Your task to perform on an android device: Open the calendar app, open the side menu, and click the "Day" option Image 0: 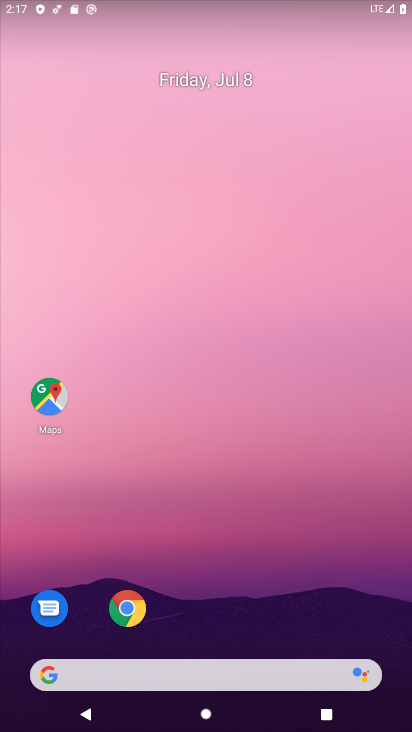
Step 0: drag from (234, 623) to (295, 60)
Your task to perform on an android device: Open the calendar app, open the side menu, and click the "Day" option Image 1: 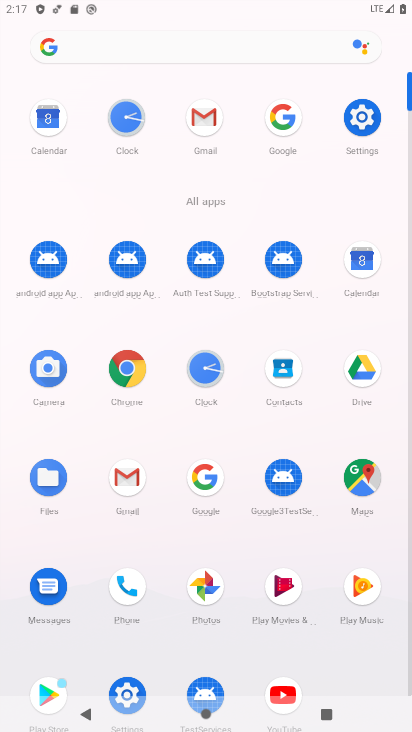
Step 1: click (365, 256)
Your task to perform on an android device: Open the calendar app, open the side menu, and click the "Day" option Image 2: 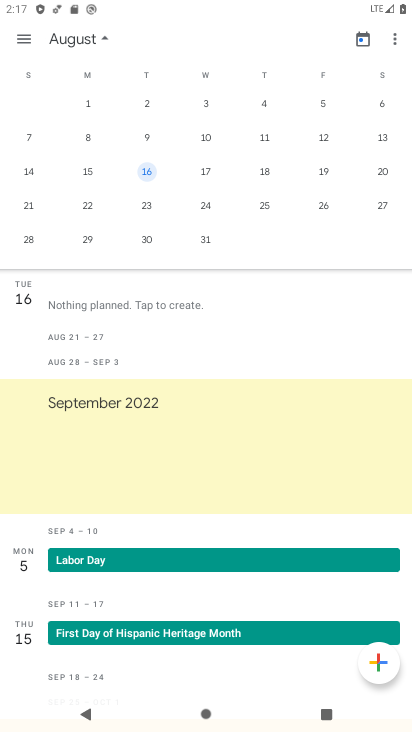
Step 2: click (22, 33)
Your task to perform on an android device: Open the calendar app, open the side menu, and click the "Day" option Image 3: 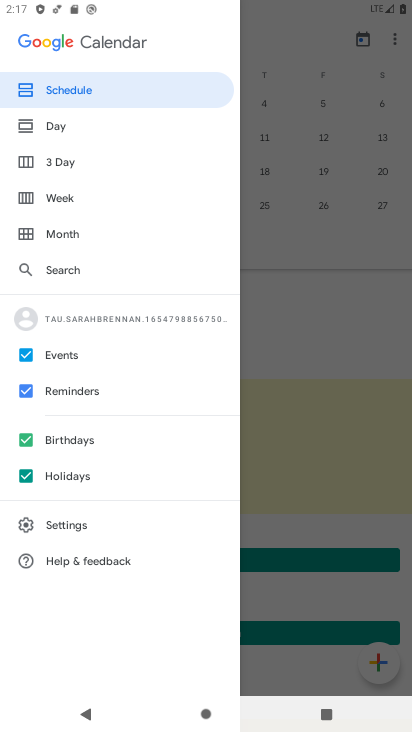
Step 3: click (303, 188)
Your task to perform on an android device: Open the calendar app, open the side menu, and click the "Day" option Image 4: 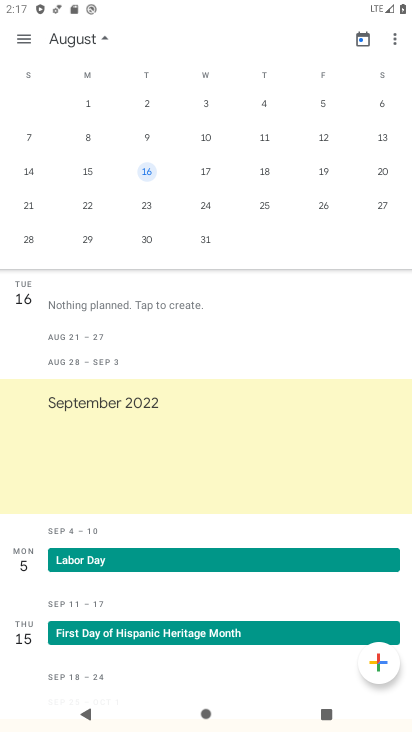
Step 4: drag from (60, 198) to (383, 197)
Your task to perform on an android device: Open the calendar app, open the side menu, and click the "Day" option Image 5: 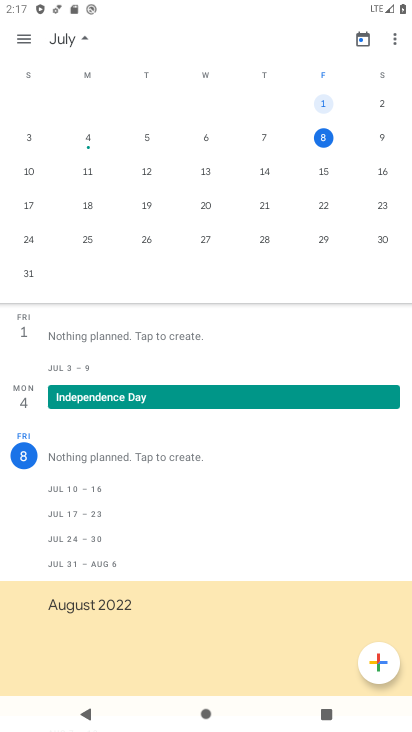
Step 5: click (25, 39)
Your task to perform on an android device: Open the calendar app, open the side menu, and click the "Day" option Image 6: 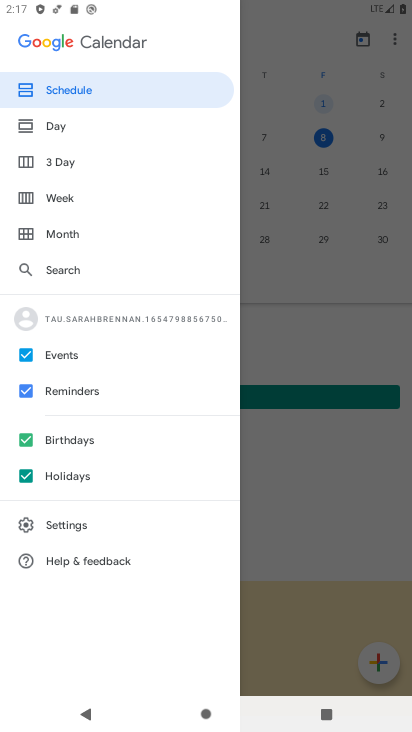
Step 6: click (68, 124)
Your task to perform on an android device: Open the calendar app, open the side menu, and click the "Day" option Image 7: 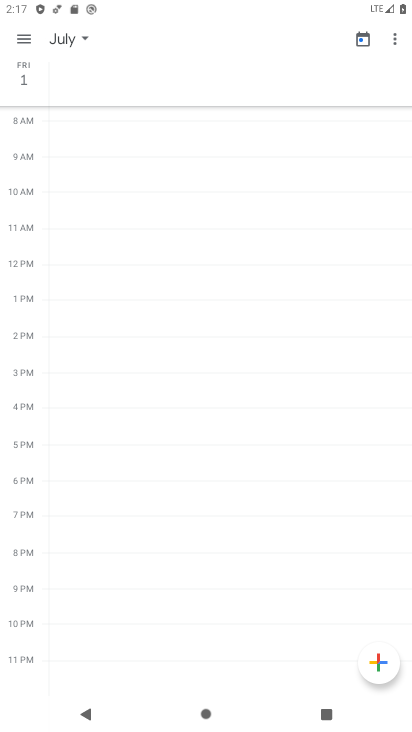
Step 7: task complete